Your task to perform on an android device: remove spam from my inbox in the gmail app Image 0: 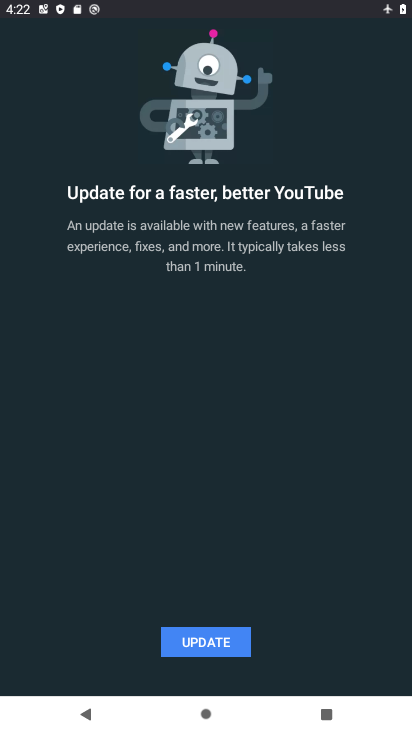
Step 0: drag from (276, 603) to (291, 493)
Your task to perform on an android device: remove spam from my inbox in the gmail app Image 1: 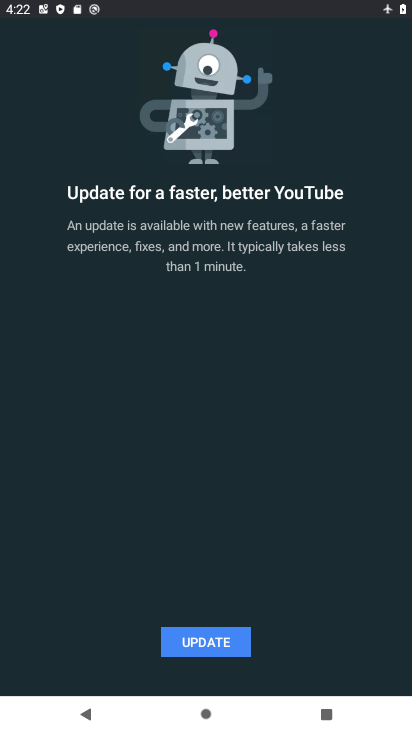
Step 1: press home button
Your task to perform on an android device: remove spam from my inbox in the gmail app Image 2: 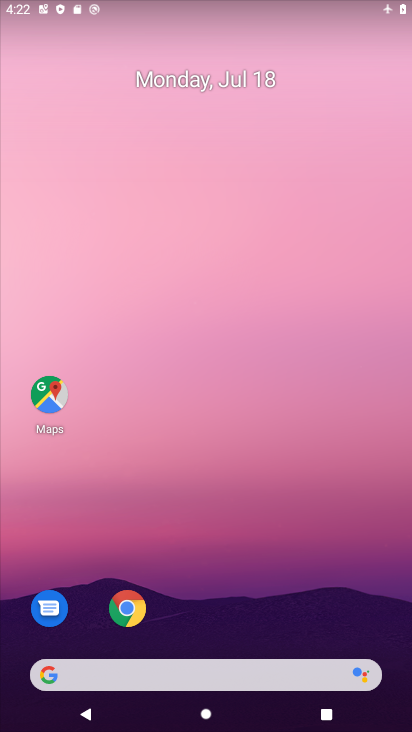
Step 2: drag from (252, 648) to (263, 76)
Your task to perform on an android device: remove spam from my inbox in the gmail app Image 3: 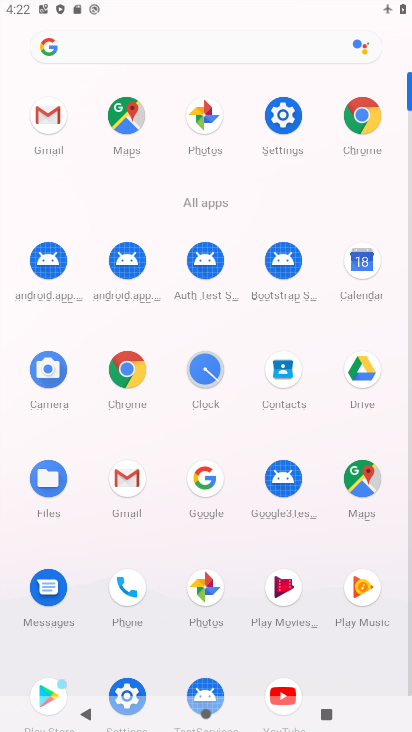
Step 3: click (37, 112)
Your task to perform on an android device: remove spam from my inbox in the gmail app Image 4: 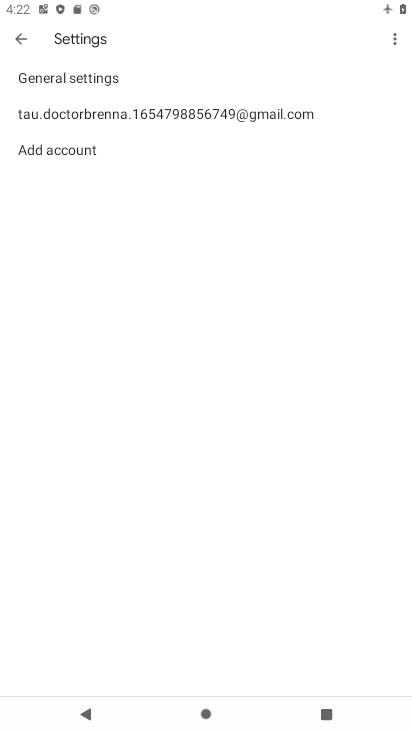
Step 4: click (25, 40)
Your task to perform on an android device: remove spam from my inbox in the gmail app Image 5: 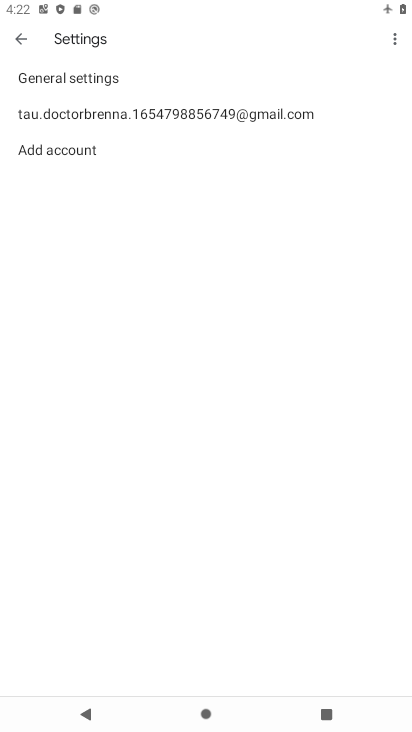
Step 5: click (19, 35)
Your task to perform on an android device: remove spam from my inbox in the gmail app Image 6: 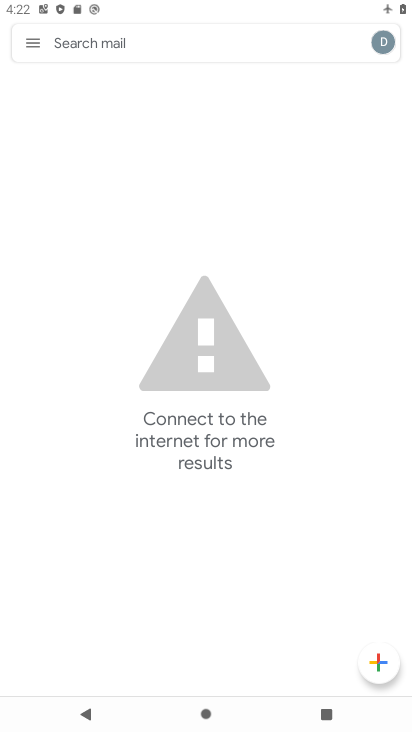
Step 6: click (30, 40)
Your task to perform on an android device: remove spam from my inbox in the gmail app Image 7: 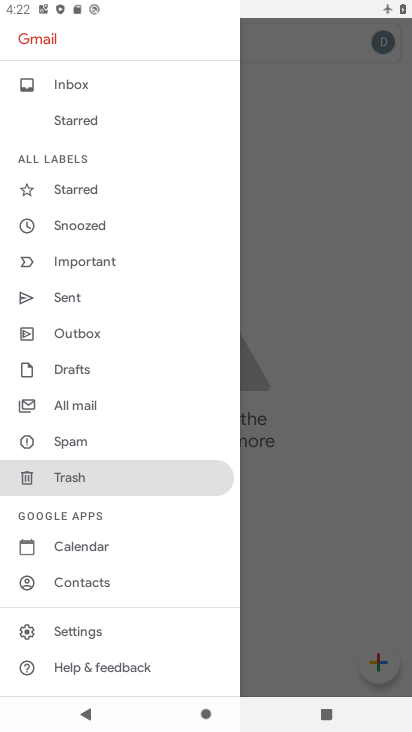
Step 7: click (82, 435)
Your task to perform on an android device: remove spam from my inbox in the gmail app Image 8: 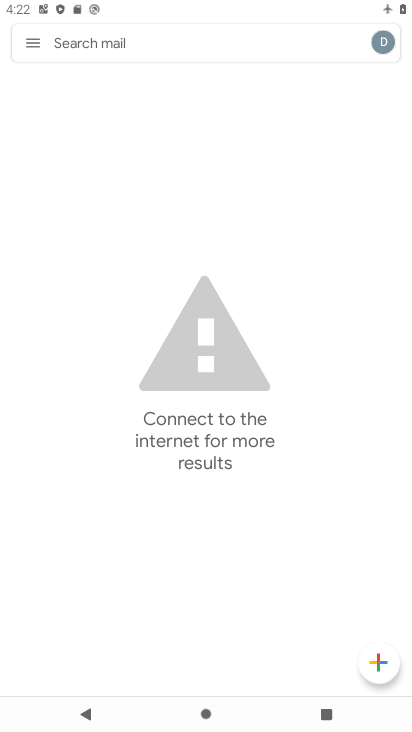
Step 8: task complete